Your task to perform on an android device: Go to ESPN.com Image 0: 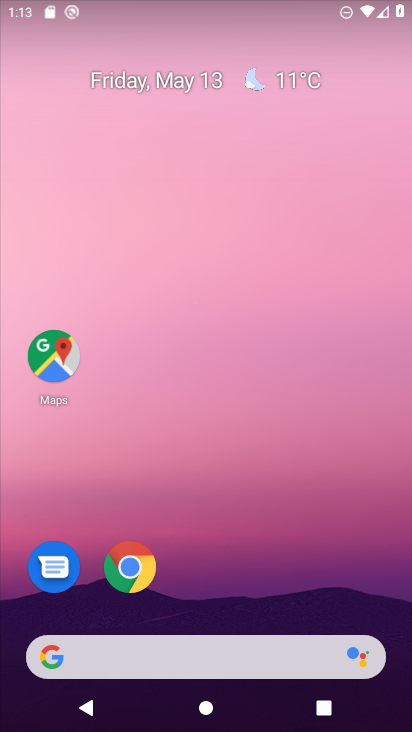
Step 0: press home button
Your task to perform on an android device: Go to ESPN.com Image 1: 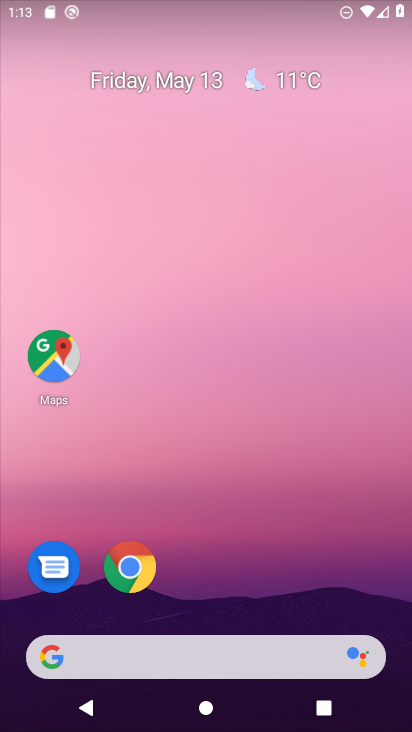
Step 1: drag from (207, 616) to (195, 140)
Your task to perform on an android device: Go to ESPN.com Image 2: 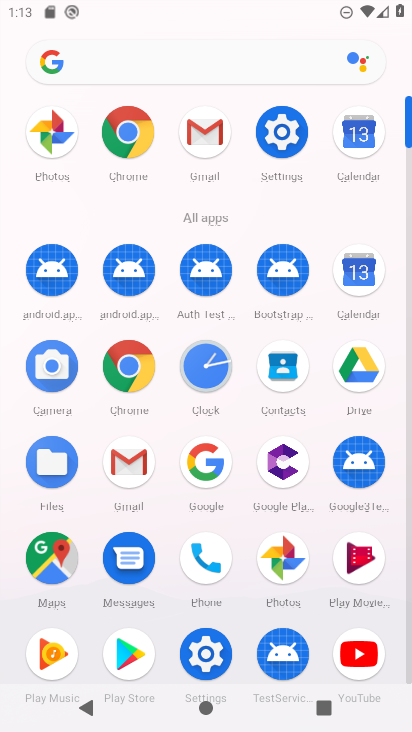
Step 2: click (130, 123)
Your task to perform on an android device: Go to ESPN.com Image 3: 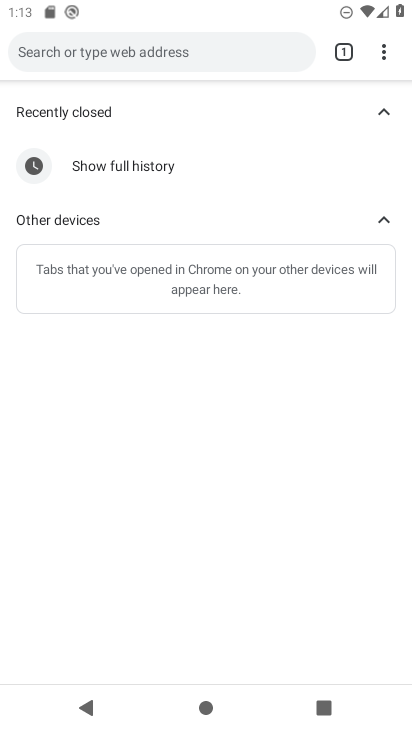
Step 3: click (337, 49)
Your task to perform on an android device: Go to ESPN.com Image 4: 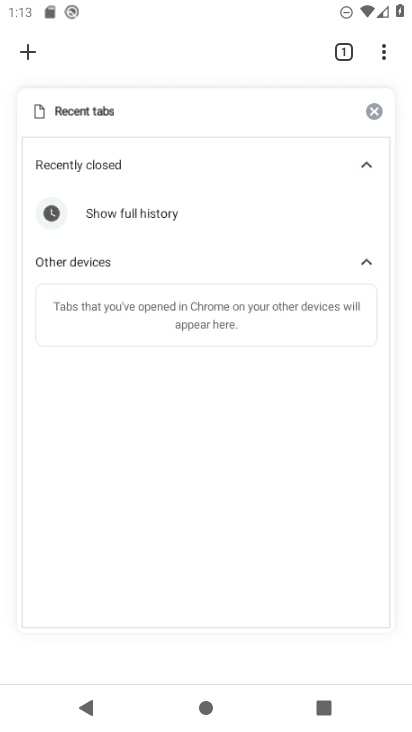
Step 4: click (372, 107)
Your task to perform on an android device: Go to ESPN.com Image 5: 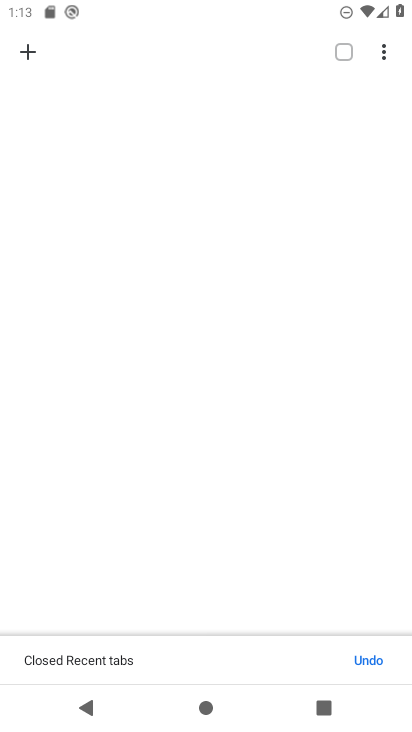
Step 5: click (32, 51)
Your task to perform on an android device: Go to ESPN.com Image 6: 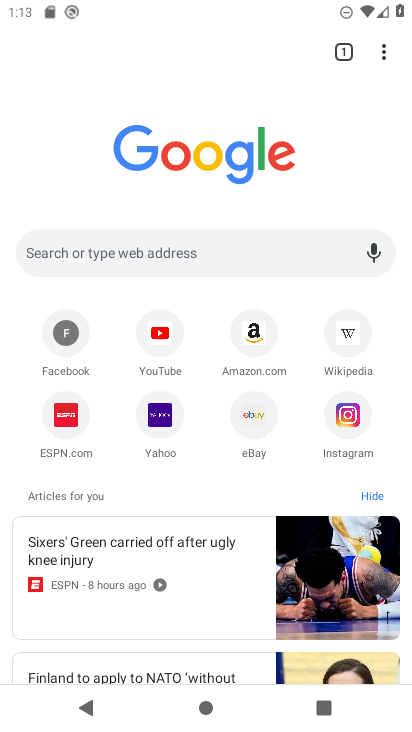
Step 6: click (67, 405)
Your task to perform on an android device: Go to ESPN.com Image 7: 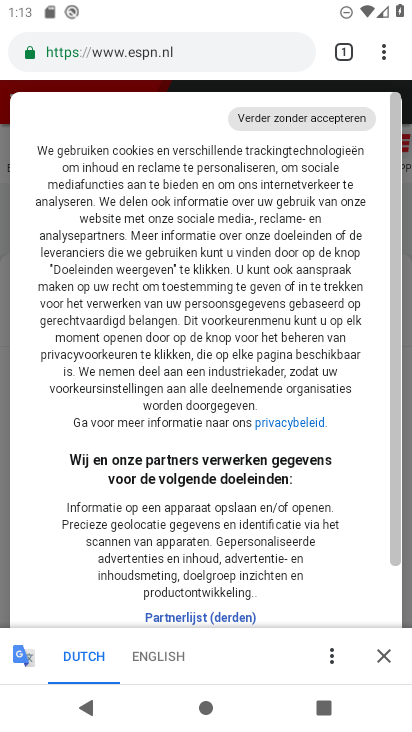
Step 7: click (379, 658)
Your task to perform on an android device: Go to ESPN.com Image 8: 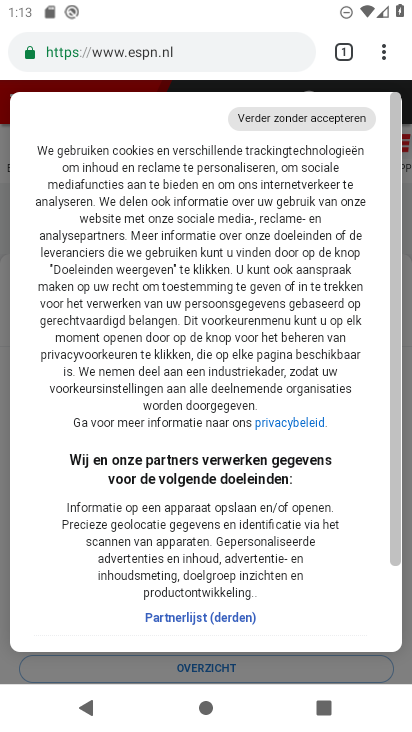
Step 8: drag from (200, 561) to (201, 132)
Your task to perform on an android device: Go to ESPN.com Image 9: 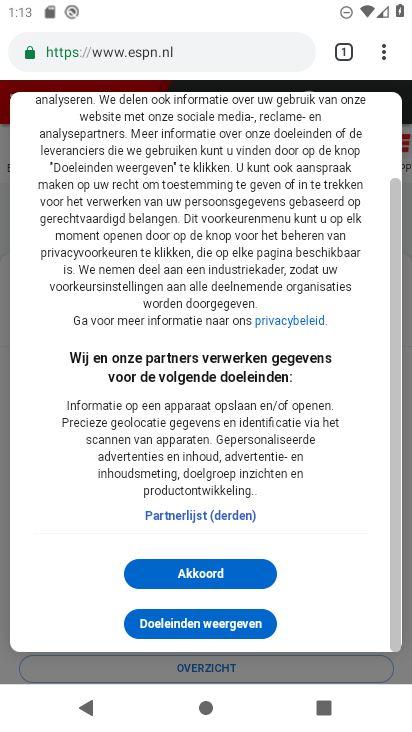
Step 9: click (204, 575)
Your task to perform on an android device: Go to ESPN.com Image 10: 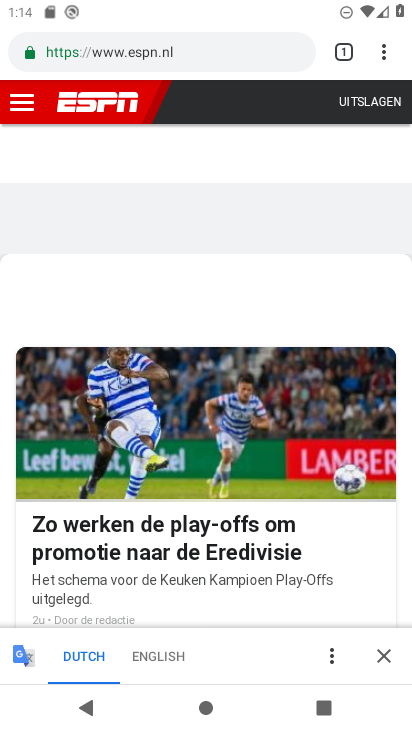
Step 10: drag from (222, 602) to (221, 345)
Your task to perform on an android device: Go to ESPN.com Image 11: 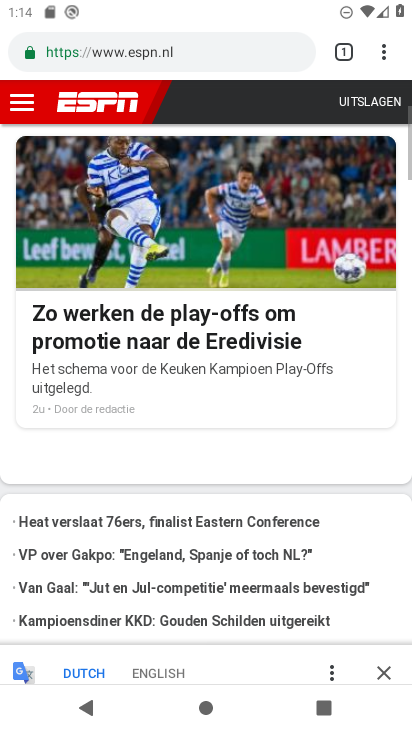
Step 11: click (221, 230)
Your task to perform on an android device: Go to ESPN.com Image 12: 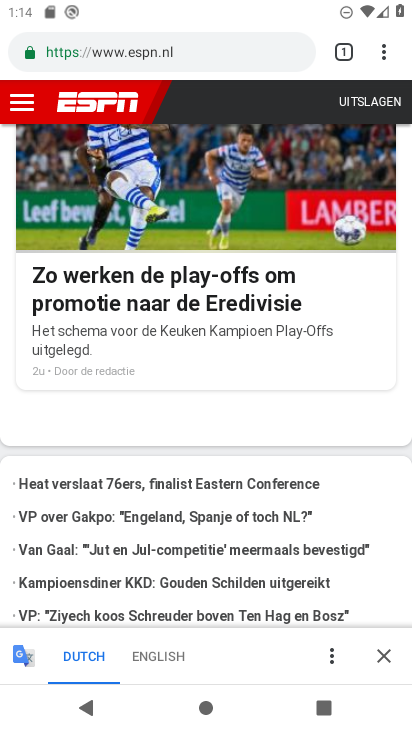
Step 12: task complete